Your task to perform on an android device: toggle notifications settings in the gmail app Image 0: 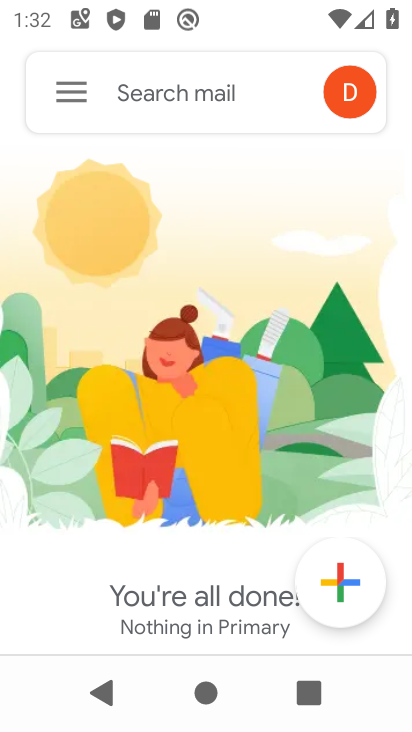
Step 0: click (85, 87)
Your task to perform on an android device: toggle notifications settings in the gmail app Image 1: 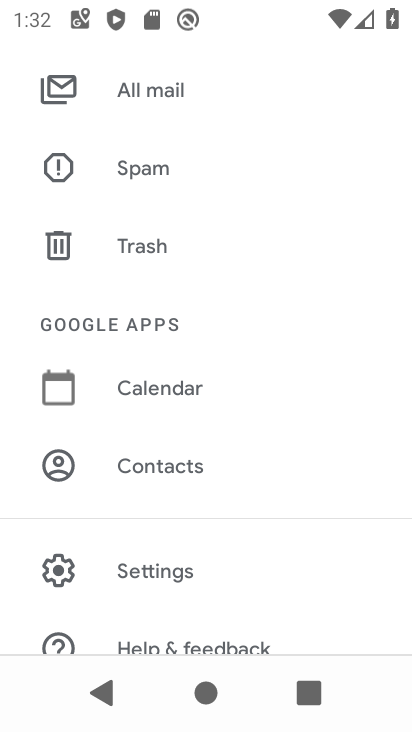
Step 1: click (75, 572)
Your task to perform on an android device: toggle notifications settings in the gmail app Image 2: 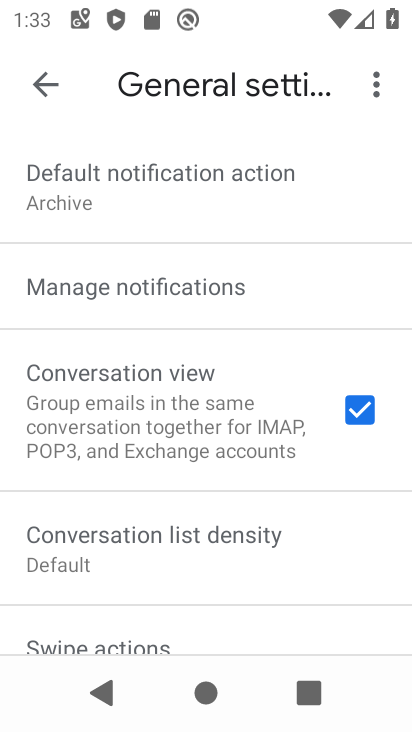
Step 2: click (168, 306)
Your task to perform on an android device: toggle notifications settings in the gmail app Image 3: 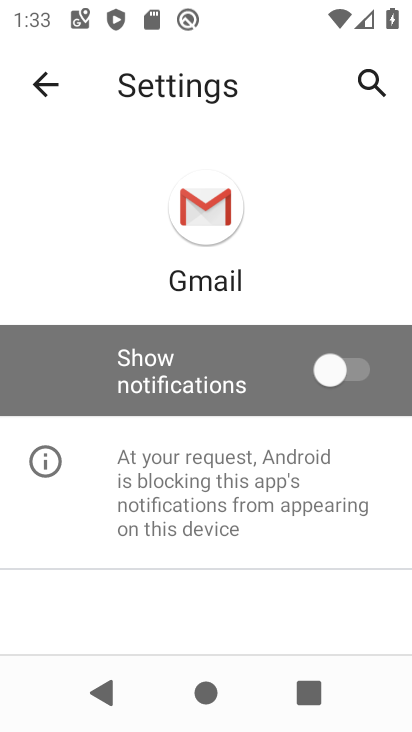
Step 3: click (352, 362)
Your task to perform on an android device: toggle notifications settings in the gmail app Image 4: 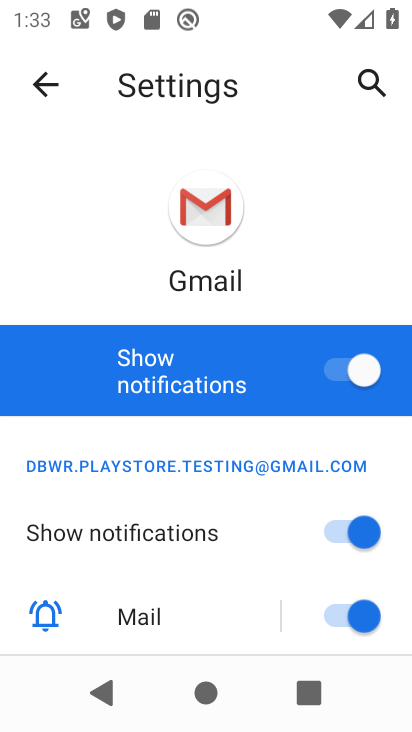
Step 4: task complete